Your task to perform on an android device: Open Maps and search for coffee Image 0: 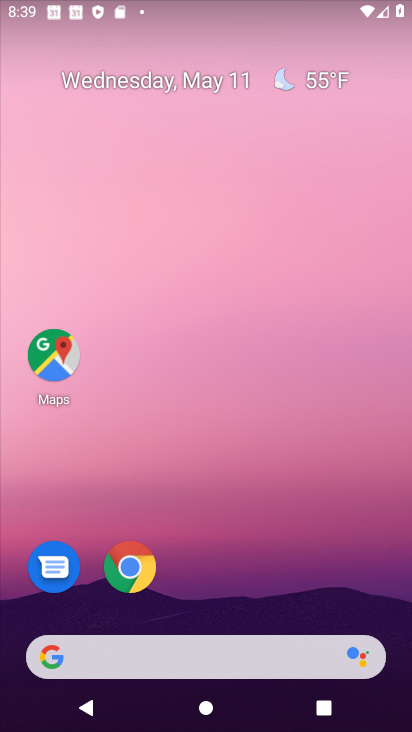
Step 0: click (59, 353)
Your task to perform on an android device: Open Maps and search for coffee Image 1: 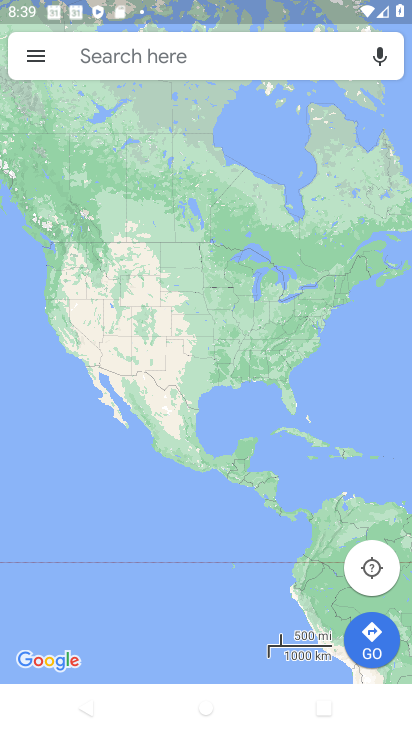
Step 1: click (201, 59)
Your task to perform on an android device: Open Maps and search for coffee Image 2: 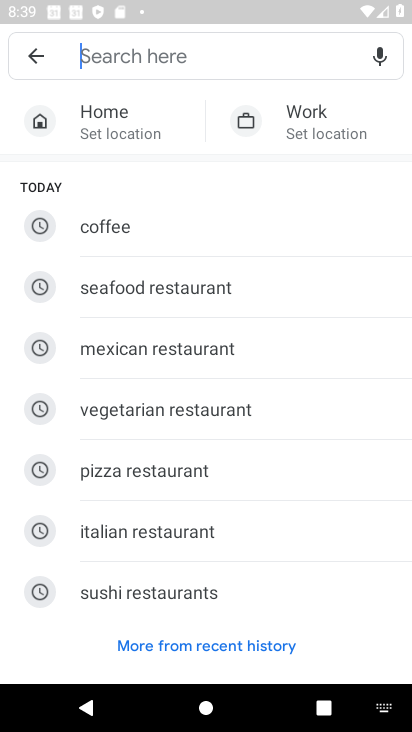
Step 2: type "coffee"
Your task to perform on an android device: Open Maps and search for coffee Image 3: 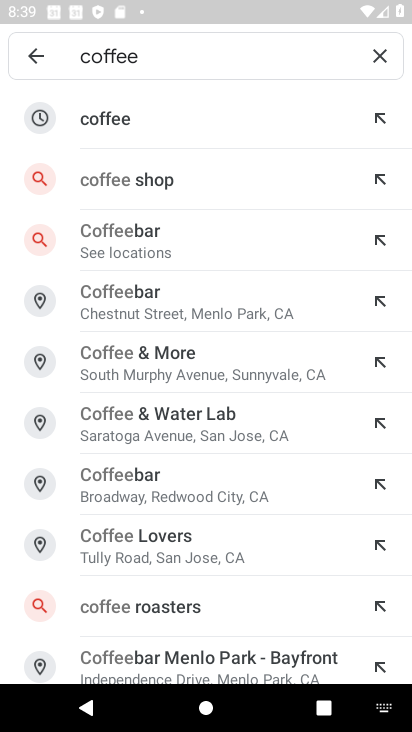
Step 3: click (195, 104)
Your task to perform on an android device: Open Maps and search for coffee Image 4: 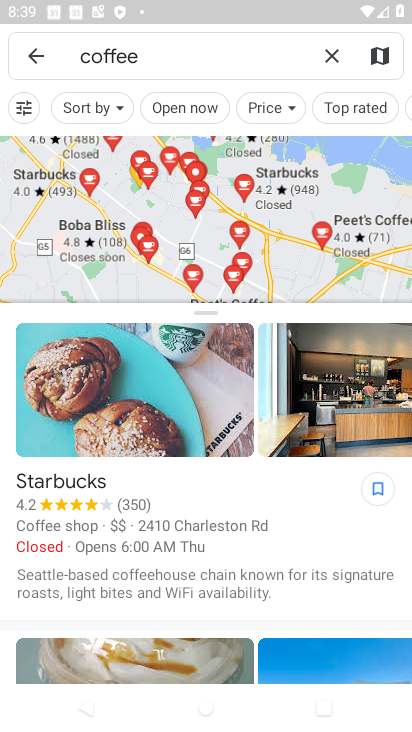
Step 4: task complete